Your task to perform on an android device: search for starred emails in the gmail app Image 0: 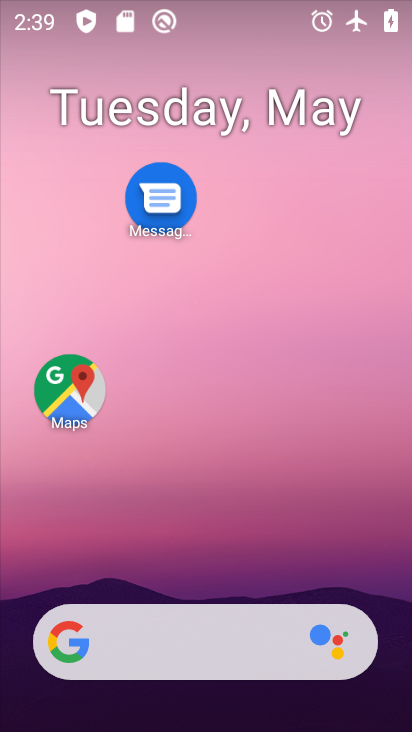
Step 0: drag from (205, 576) to (252, 65)
Your task to perform on an android device: search for starred emails in the gmail app Image 1: 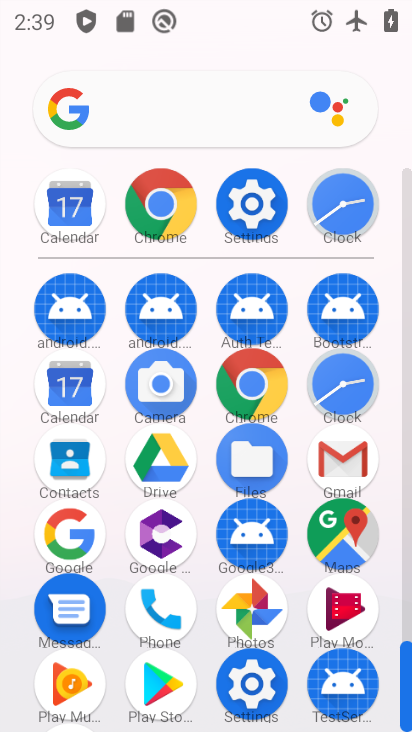
Step 1: click (338, 458)
Your task to perform on an android device: search for starred emails in the gmail app Image 2: 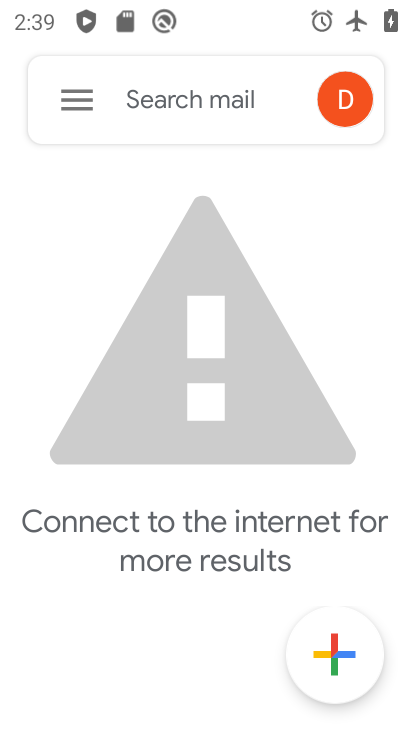
Step 2: click (79, 84)
Your task to perform on an android device: search for starred emails in the gmail app Image 3: 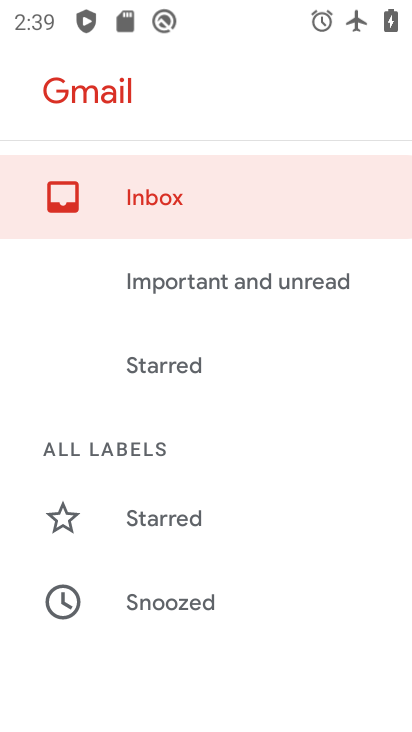
Step 3: drag from (163, 308) to (179, 412)
Your task to perform on an android device: search for starred emails in the gmail app Image 4: 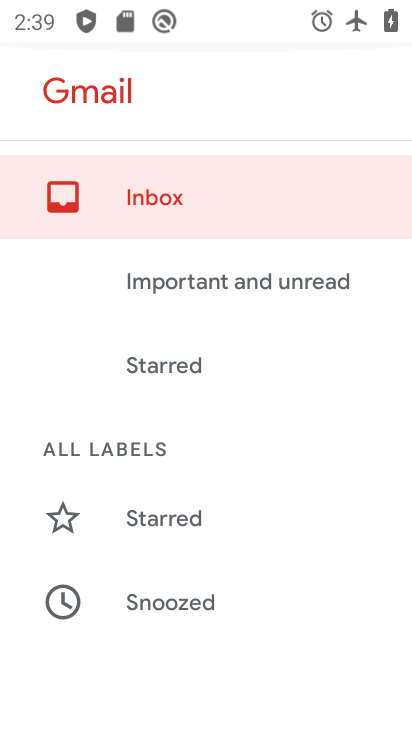
Step 4: click (177, 523)
Your task to perform on an android device: search for starred emails in the gmail app Image 5: 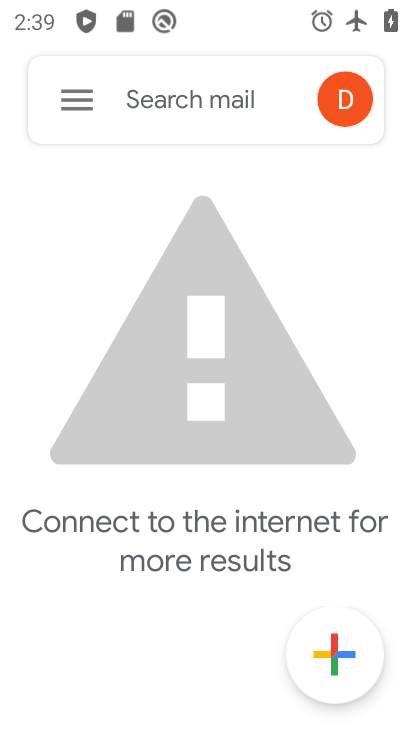
Step 5: task complete